Your task to perform on an android device: Go to Wikipedia Image 0: 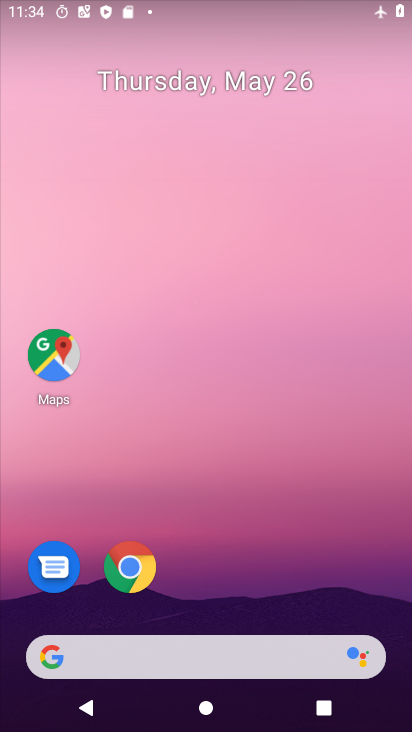
Step 0: click (144, 652)
Your task to perform on an android device: Go to Wikipedia Image 1: 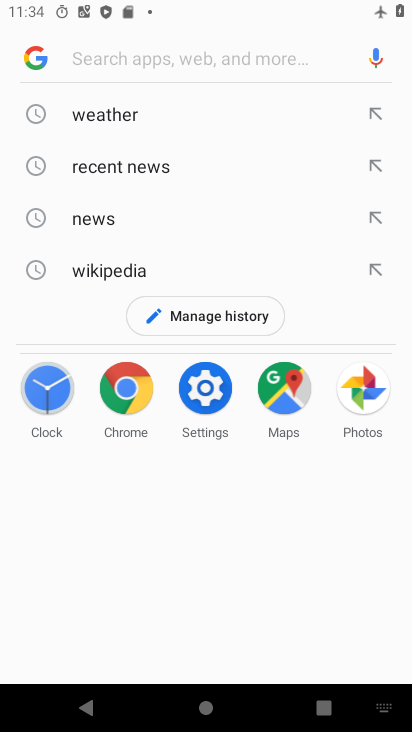
Step 1: click (144, 268)
Your task to perform on an android device: Go to Wikipedia Image 2: 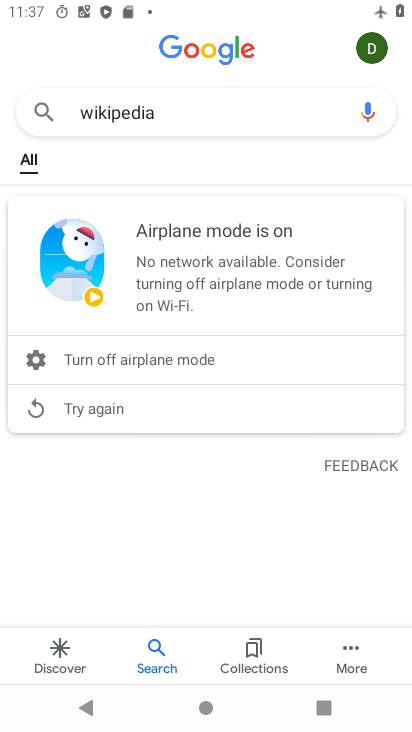
Step 2: task complete